Your task to perform on an android device: change notifications settings Image 0: 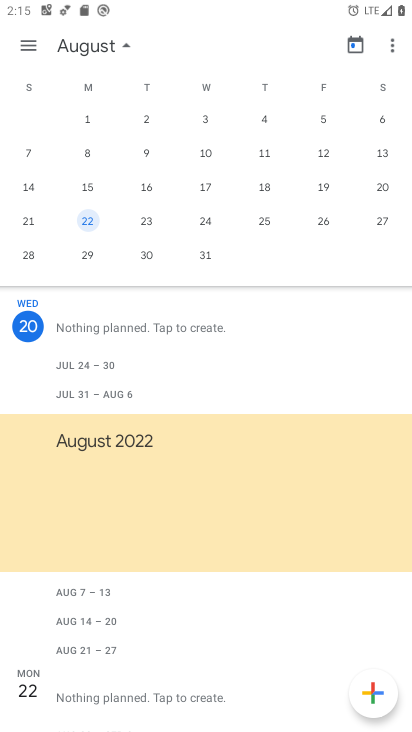
Step 0: press home button
Your task to perform on an android device: change notifications settings Image 1: 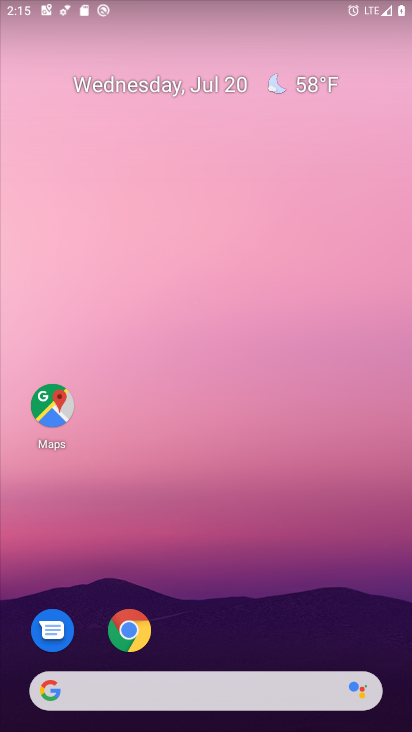
Step 1: drag from (173, 583) to (220, 151)
Your task to perform on an android device: change notifications settings Image 2: 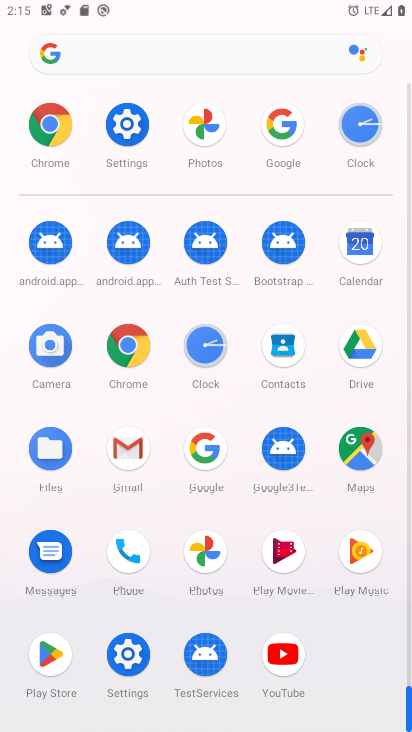
Step 2: click (62, 146)
Your task to perform on an android device: change notifications settings Image 3: 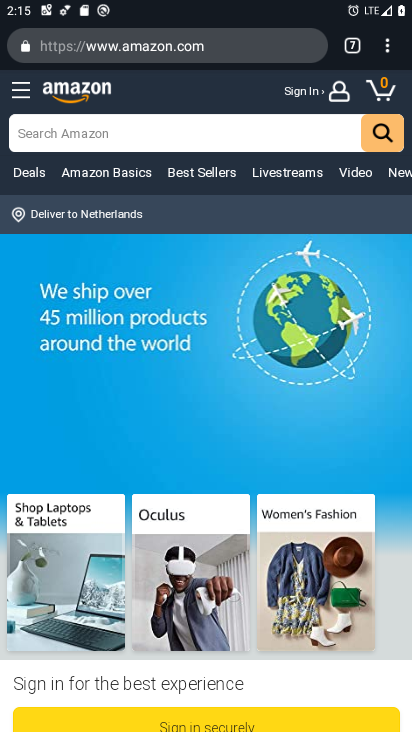
Step 3: press home button
Your task to perform on an android device: change notifications settings Image 4: 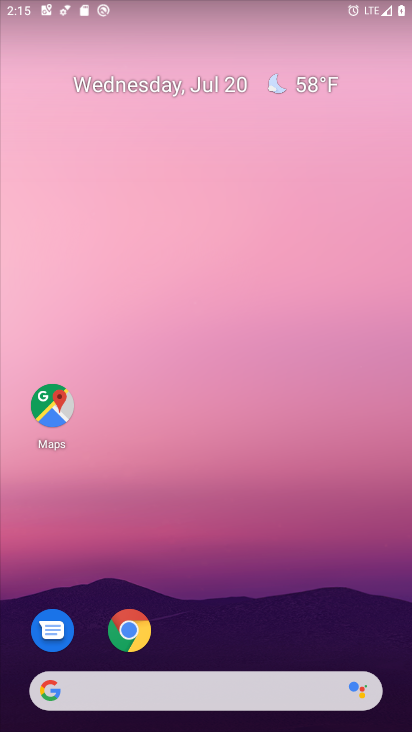
Step 4: drag from (191, 682) to (250, 123)
Your task to perform on an android device: change notifications settings Image 5: 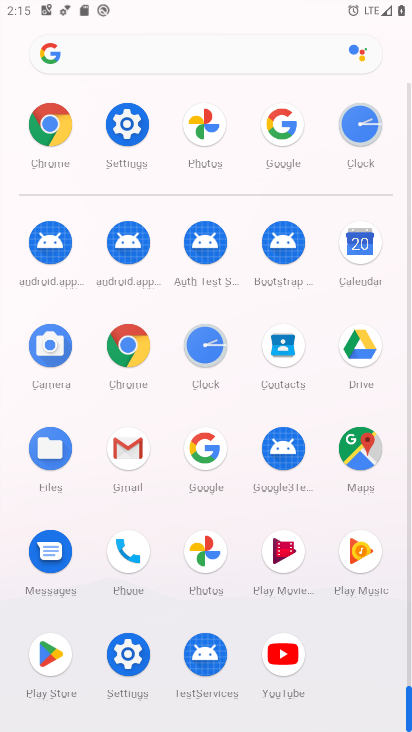
Step 5: click (129, 142)
Your task to perform on an android device: change notifications settings Image 6: 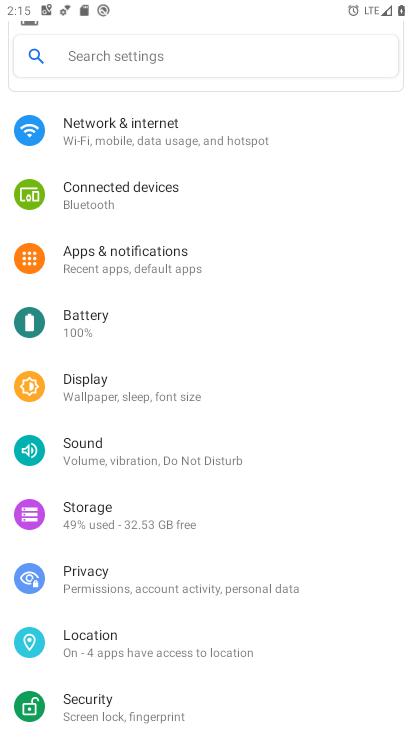
Step 6: click (171, 260)
Your task to perform on an android device: change notifications settings Image 7: 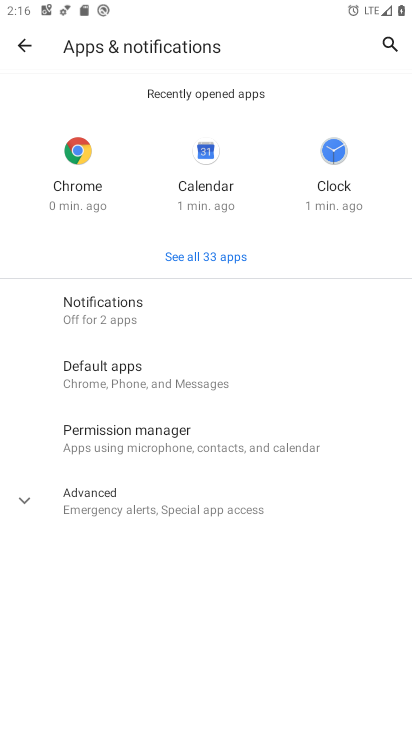
Step 7: click (193, 300)
Your task to perform on an android device: change notifications settings Image 8: 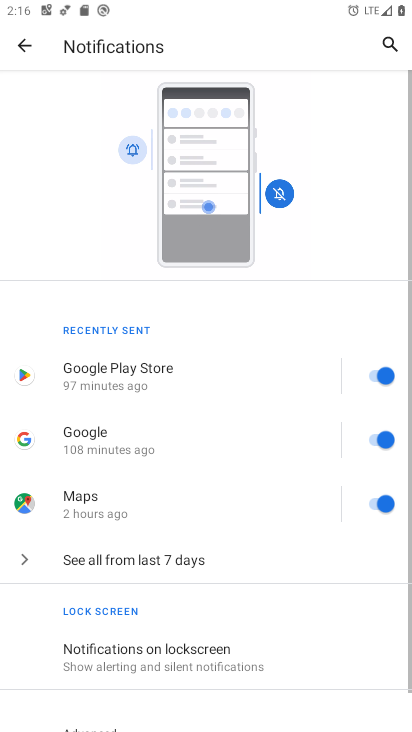
Step 8: click (369, 385)
Your task to perform on an android device: change notifications settings Image 9: 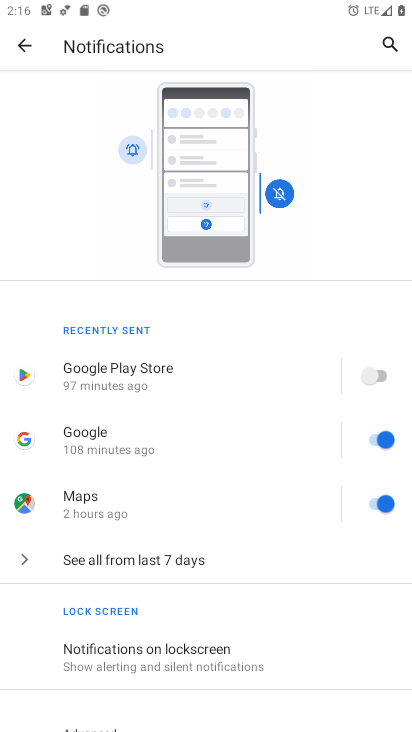
Step 9: task complete